Your task to perform on an android device: Open calendar and show me the first week of next month Image 0: 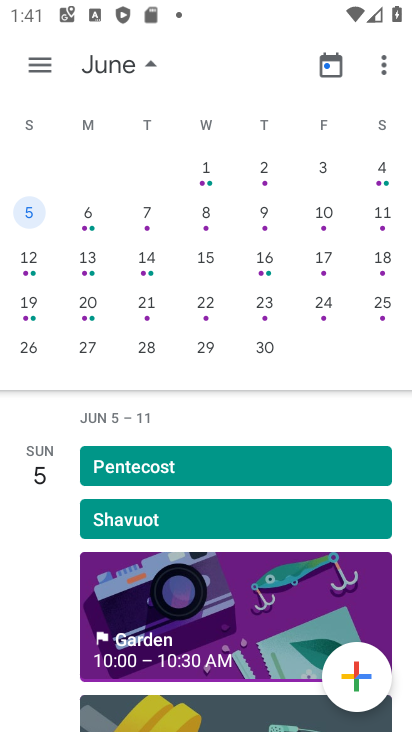
Step 0: drag from (149, 715) to (124, 250)
Your task to perform on an android device: Open calendar and show me the first week of next month Image 1: 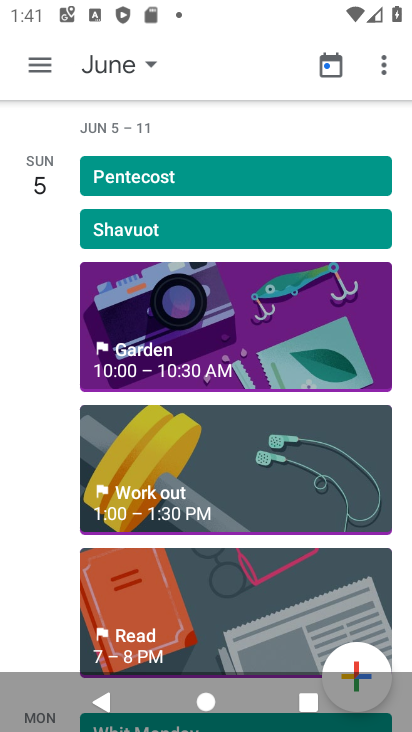
Step 1: press home button
Your task to perform on an android device: Open calendar and show me the first week of next month Image 2: 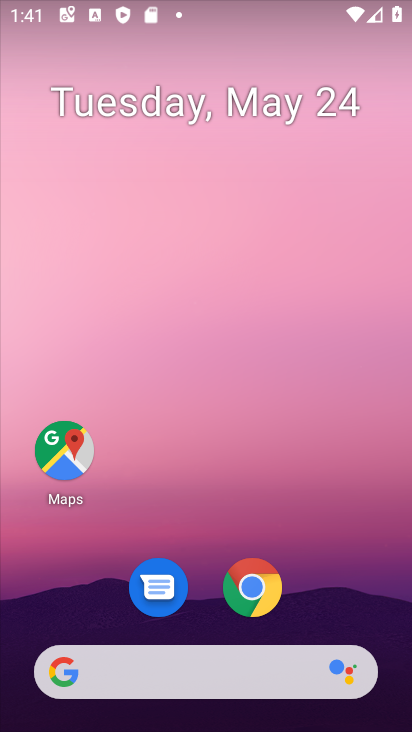
Step 2: drag from (135, 681) to (94, 123)
Your task to perform on an android device: Open calendar and show me the first week of next month Image 3: 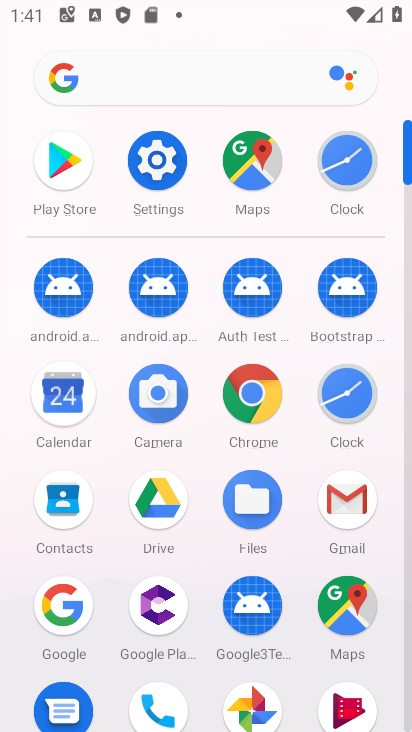
Step 3: click (68, 401)
Your task to perform on an android device: Open calendar and show me the first week of next month Image 4: 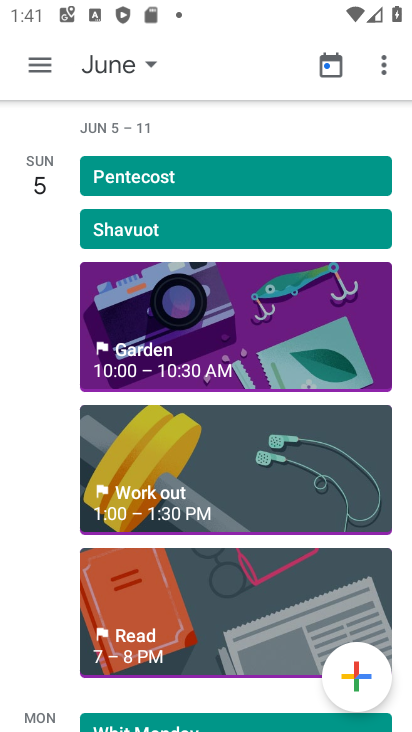
Step 4: click (122, 62)
Your task to perform on an android device: Open calendar and show me the first week of next month Image 5: 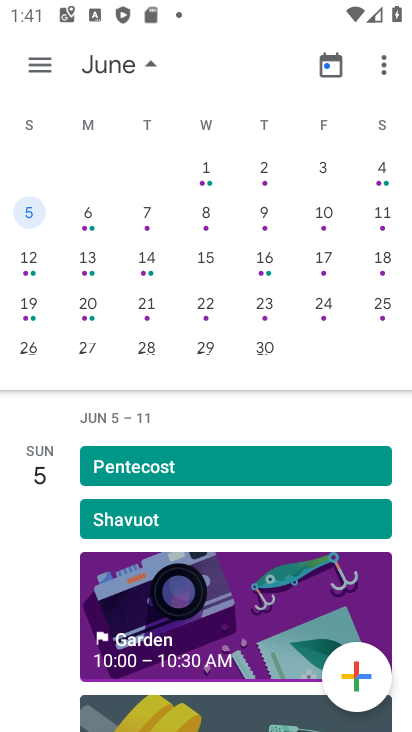
Step 5: click (208, 171)
Your task to perform on an android device: Open calendar and show me the first week of next month Image 6: 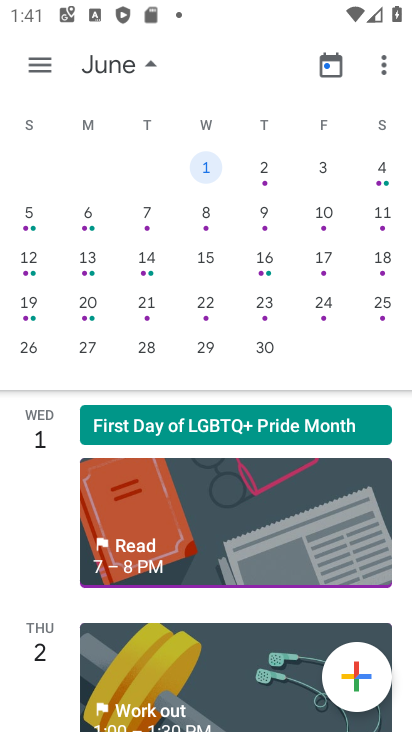
Step 6: task complete